Your task to perform on an android device: Go to calendar. Show me events next week Image 0: 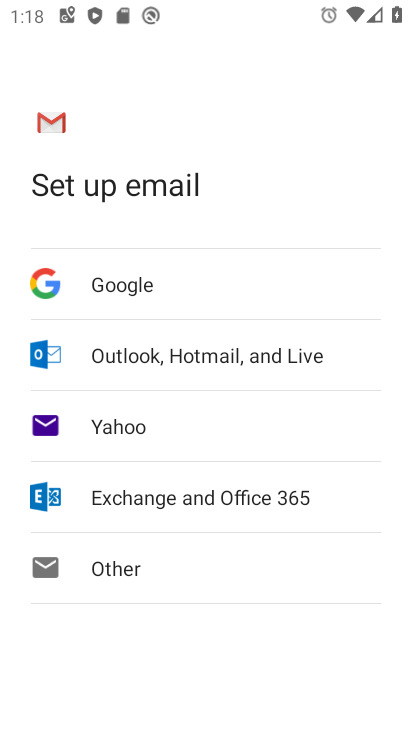
Step 0: press home button
Your task to perform on an android device: Go to calendar. Show me events next week Image 1: 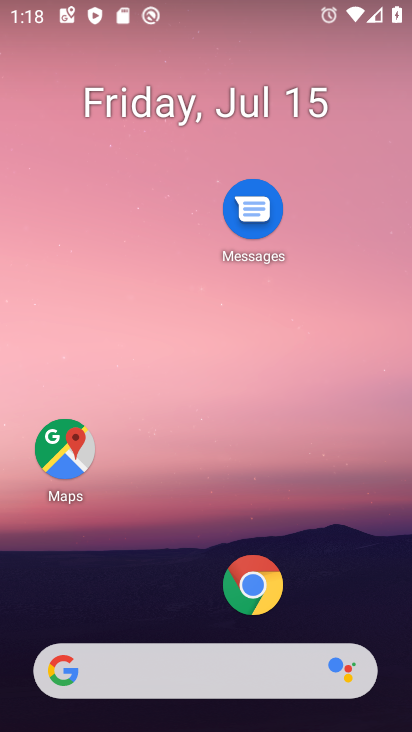
Step 1: drag from (169, 669) to (262, 85)
Your task to perform on an android device: Go to calendar. Show me events next week Image 2: 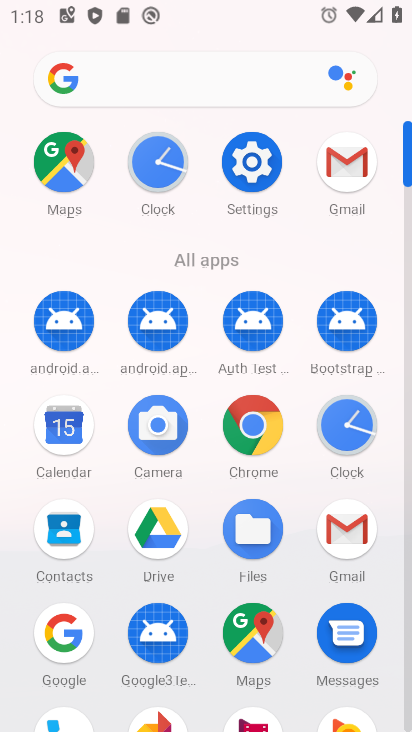
Step 2: click (58, 442)
Your task to perform on an android device: Go to calendar. Show me events next week Image 3: 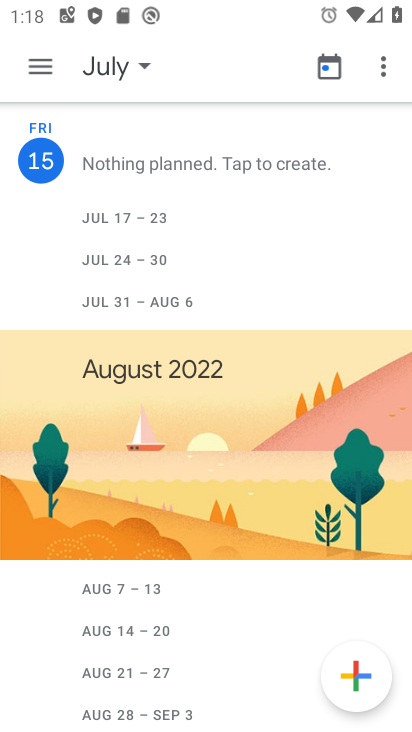
Step 3: click (107, 71)
Your task to perform on an android device: Go to calendar. Show me events next week Image 4: 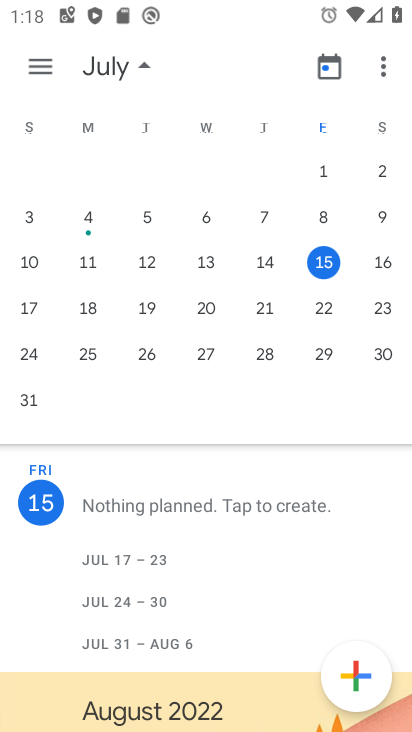
Step 4: click (31, 305)
Your task to perform on an android device: Go to calendar. Show me events next week Image 5: 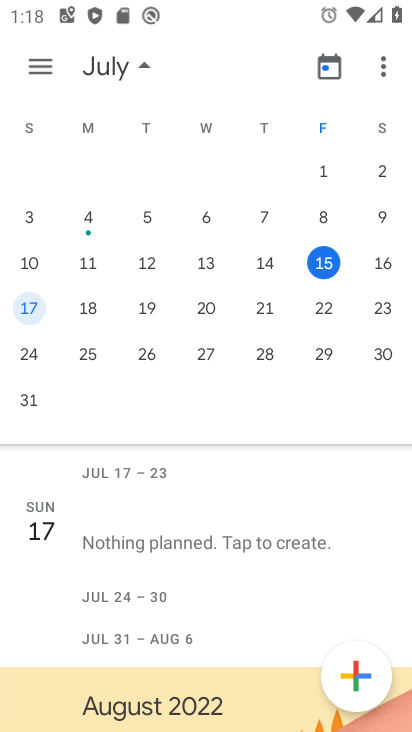
Step 5: click (44, 65)
Your task to perform on an android device: Go to calendar. Show me events next week Image 6: 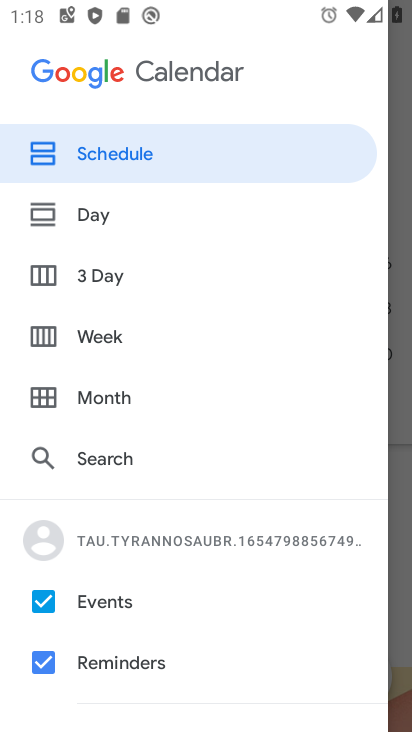
Step 6: click (97, 342)
Your task to perform on an android device: Go to calendar. Show me events next week Image 7: 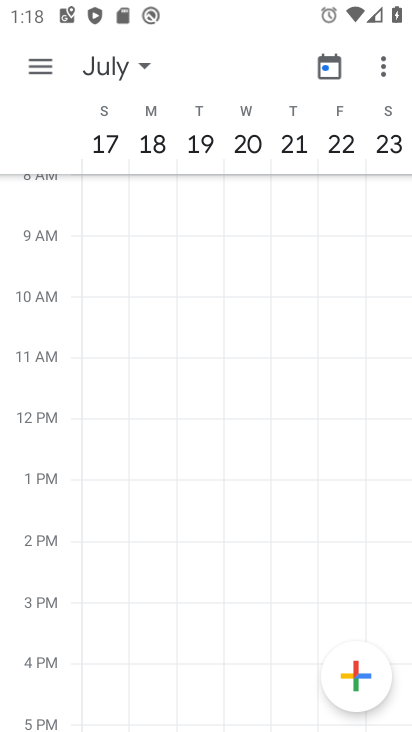
Step 7: click (44, 64)
Your task to perform on an android device: Go to calendar. Show me events next week Image 8: 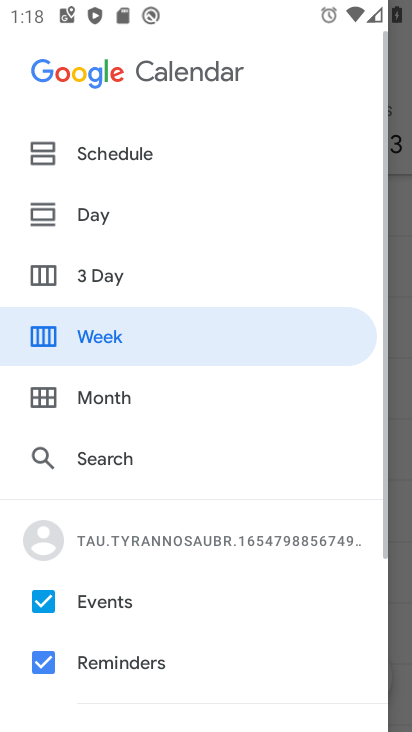
Step 8: click (115, 151)
Your task to perform on an android device: Go to calendar. Show me events next week Image 9: 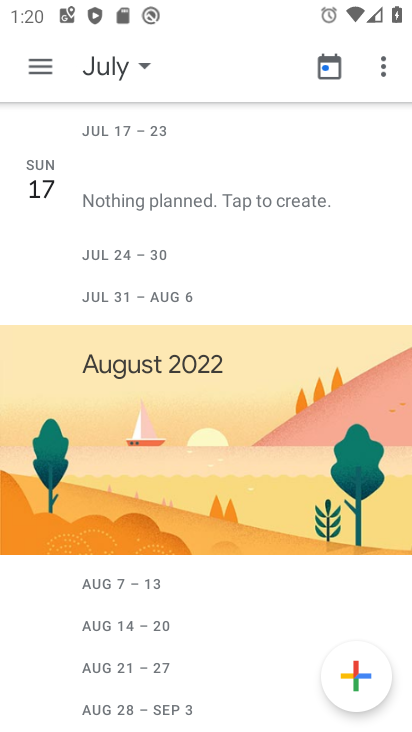
Step 9: task complete